Your task to perform on an android device: find which apps use the phone's location Image 0: 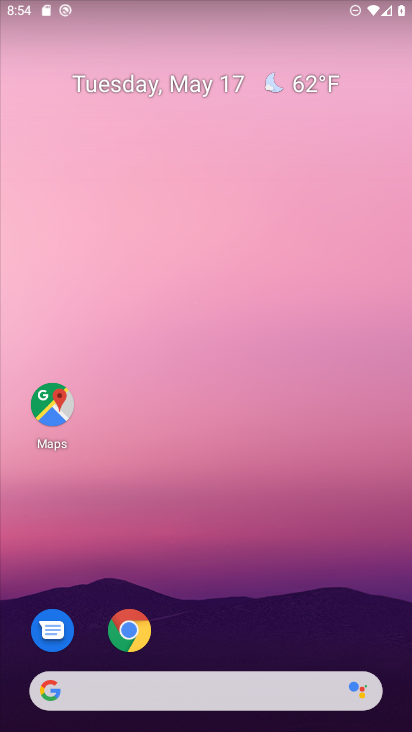
Step 0: drag from (233, 650) to (268, 195)
Your task to perform on an android device: find which apps use the phone's location Image 1: 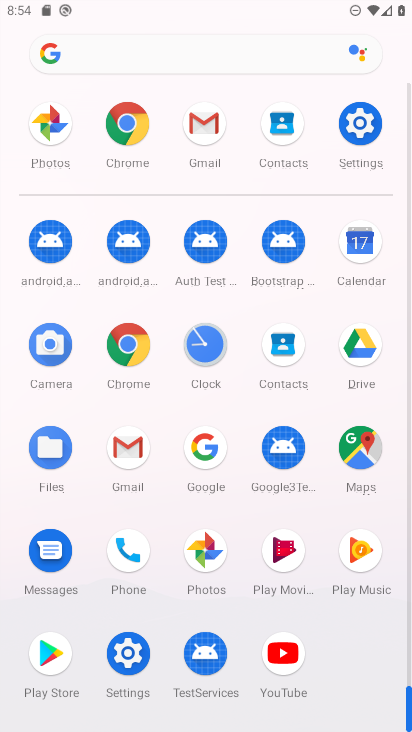
Step 1: click (354, 139)
Your task to perform on an android device: find which apps use the phone's location Image 2: 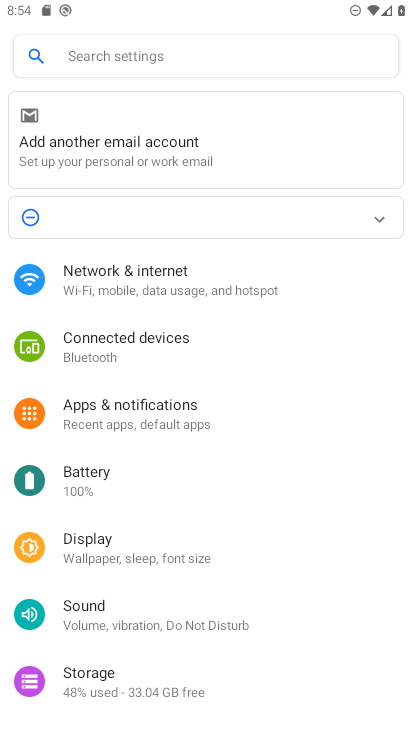
Step 2: drag from (119, 646) to (156, 413)
Your task to perform on an android device: find which apps use the phone's location Image 3: 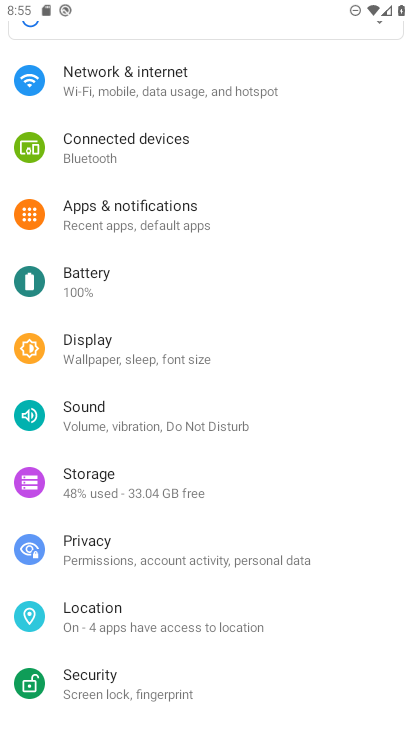
Step 3: click (95, 631)
Your task to perform on an android device: find which apps use the phone's location Image 4: 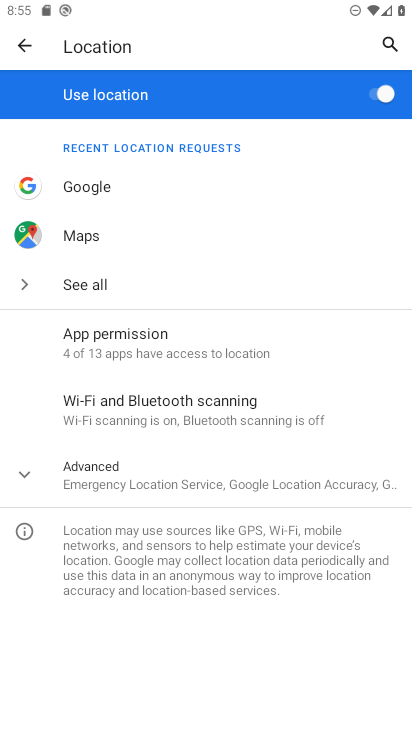
Step 4: click (109, 344)
Your task to perform on an android device: find which apps use the phone's location Image 5: 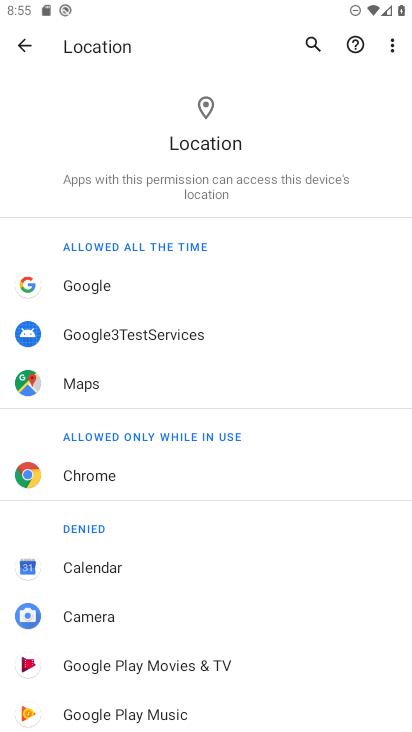
Step 5: task complete